Your task to perform on an android device: change notifications settings Image 0: 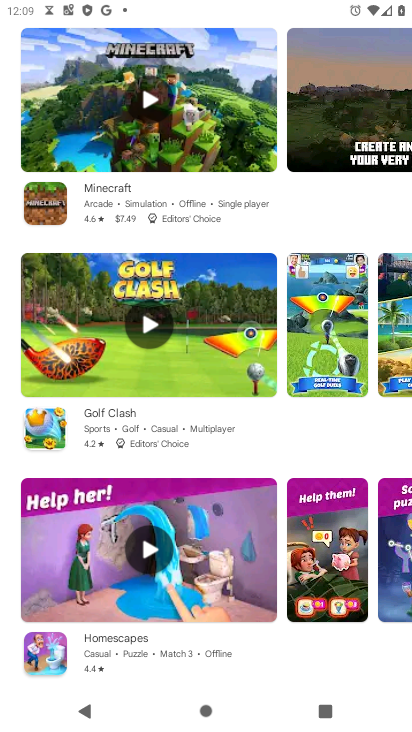
Step 0: press home button
Your task to perform on an android device: change notifications settings Image 1: 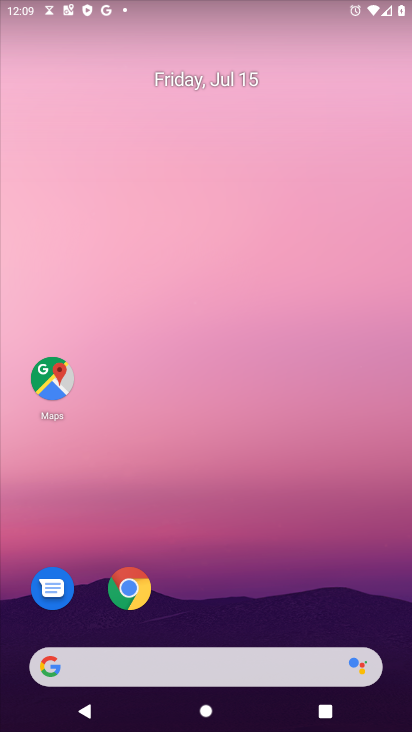
Step 1: drag from (202, 615) to (290, 115)
Your task to perform on an android device: change notifications settings Image 2: 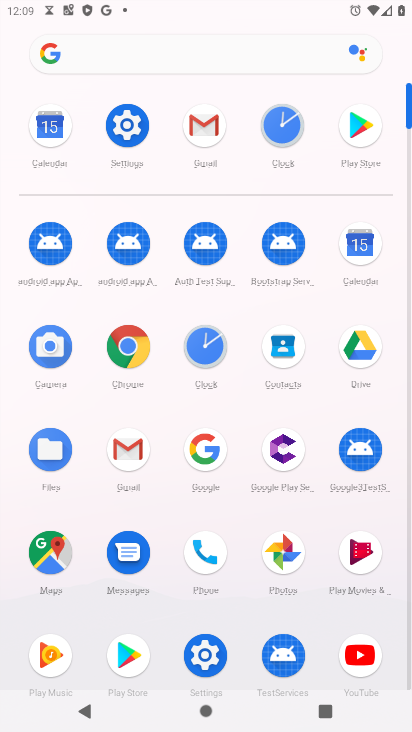
Step 2: click (133, 124)
Your task to perform on an android device: change notifications settings Image 3: 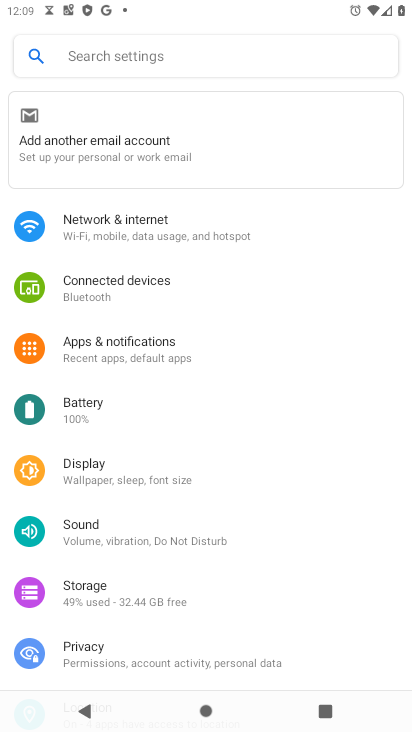
Step 3: click (161, 341)
Your task to perform on an android device: change notifications settings Image 4: 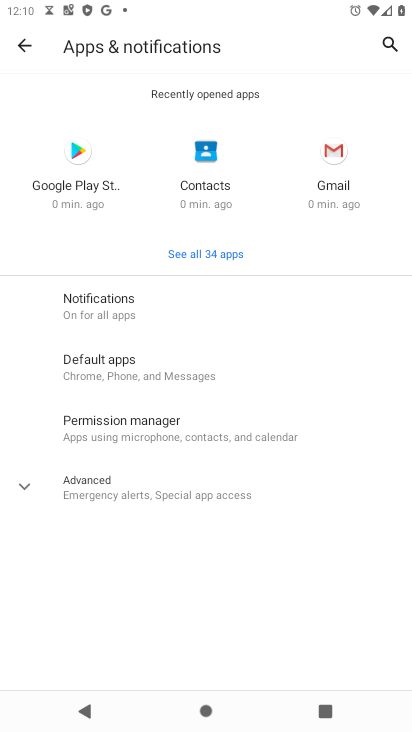
Step 4: click (114, 308)
Your task to perform on an android device: change notifications settings Image 5: 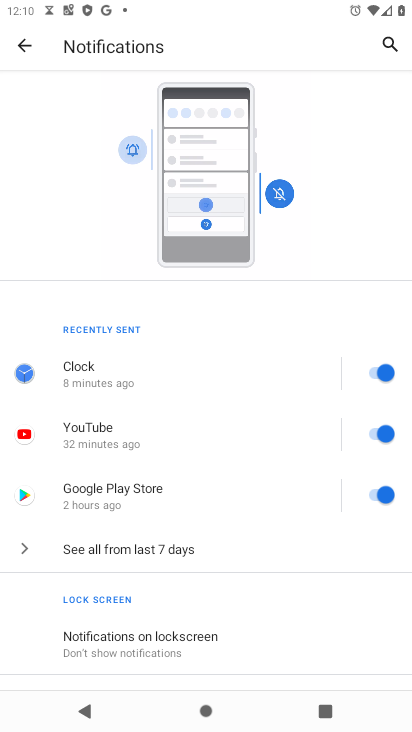
Step 5: click (376, 369)
Your task to perform on an android device: change notifications settings Image 6: 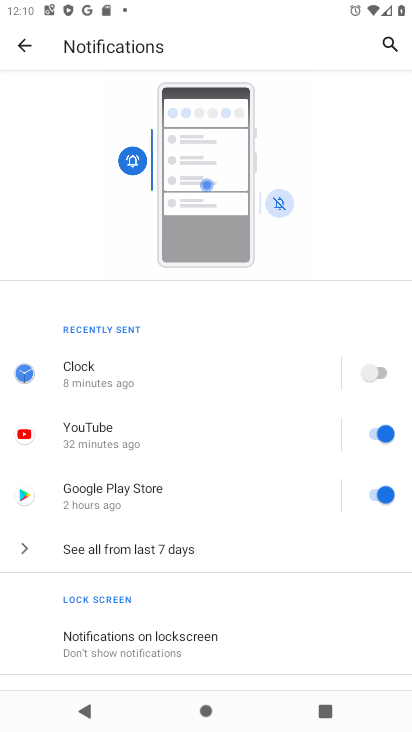
Step 6: task complete